Your task to perform on an android device: Open maps Image 0: 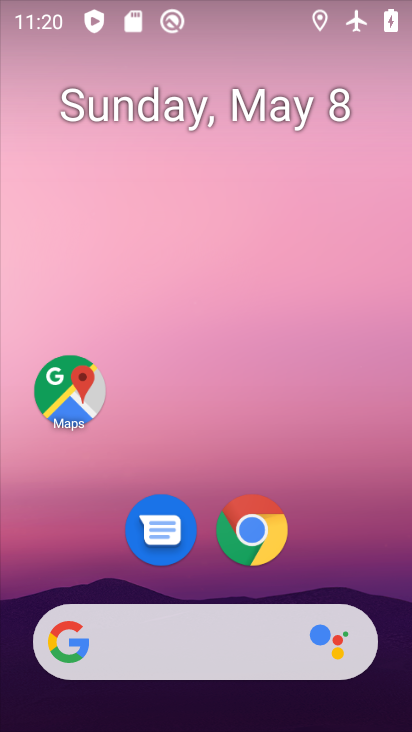
Step 0: drag from (334, 616) to (339, 2)
Your task to perform on an android device: Open maps Image 1: 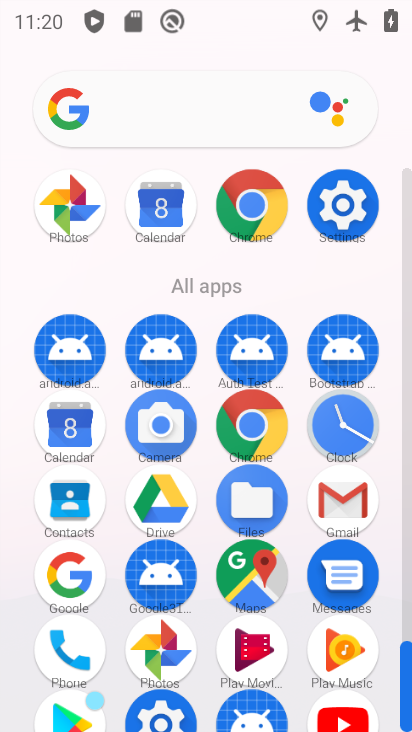
Step 1: drag from (304, 643) to (316, 519)
Your task to perform on an android device: Open maps Image 2: 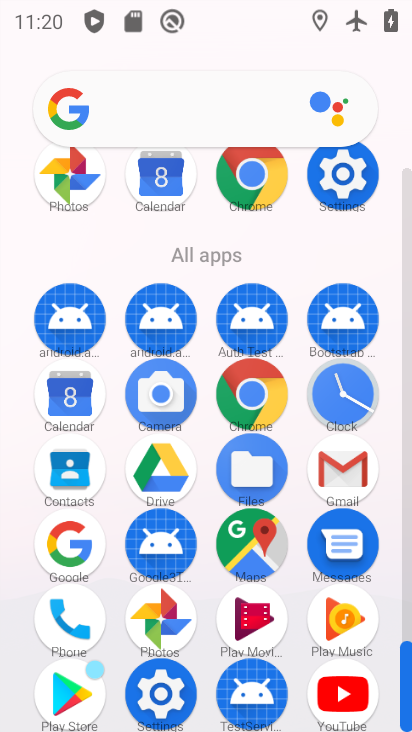
Step 2: click (251, 547)
Your task to perform on an android device: Open maps Image 3: 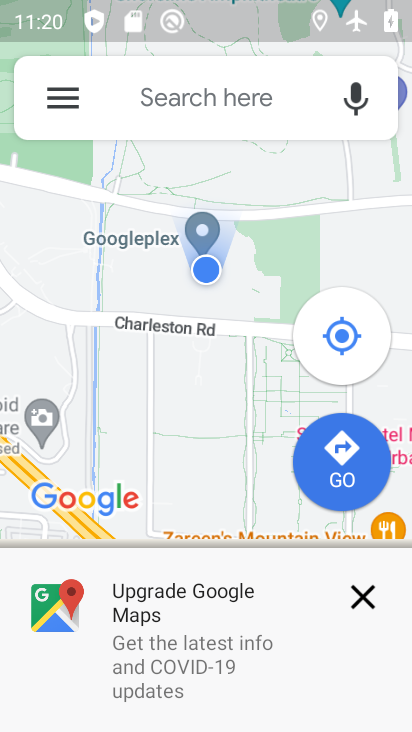
Step 3: task complete